Your task to perform on an android device: Go to internet settings Image 0: 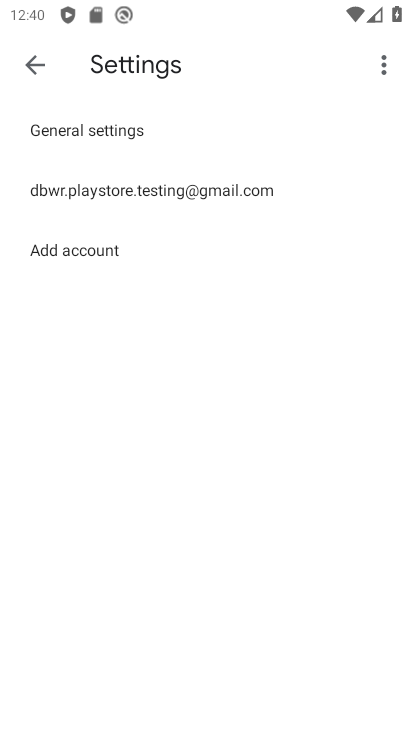
Step 0: press home button
Your task to perform on an android device: Go to internet settings Image 1: 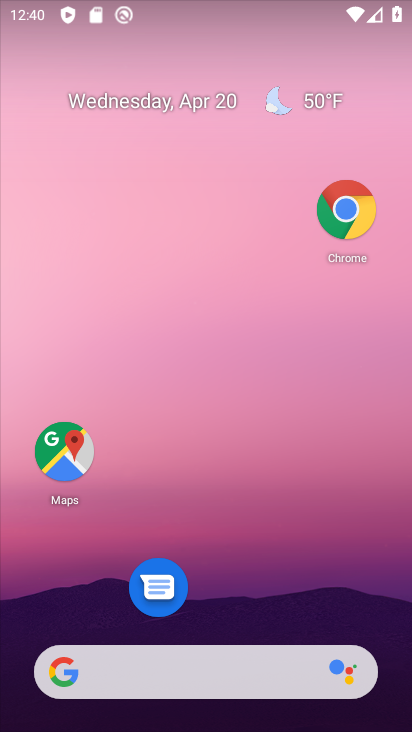
Step 1: drag from (246, 556) to (354, 4)
Your task to perform on an android device: Go to internet settings Image 2: 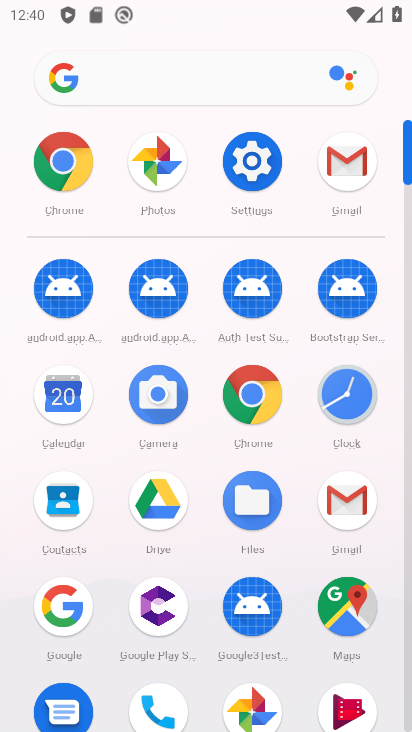
Step 2: click (242, 170)
Your task to perform on an android device: Go to internet settings Image 3: 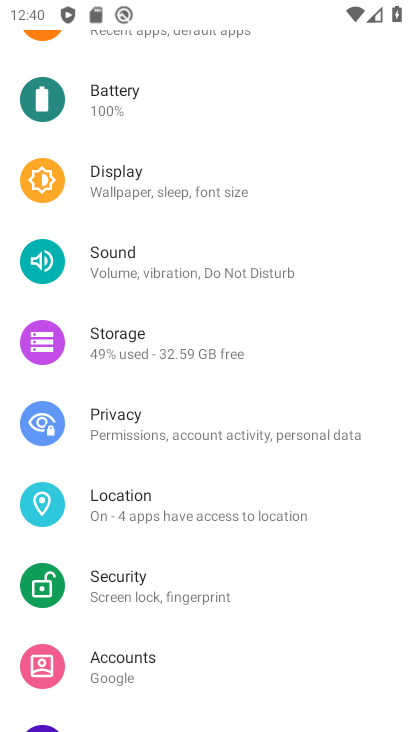
Step 3: drag from (199, 154) to (124, 514)
Your task to perform on an android device: Go to internet settings Image 4: 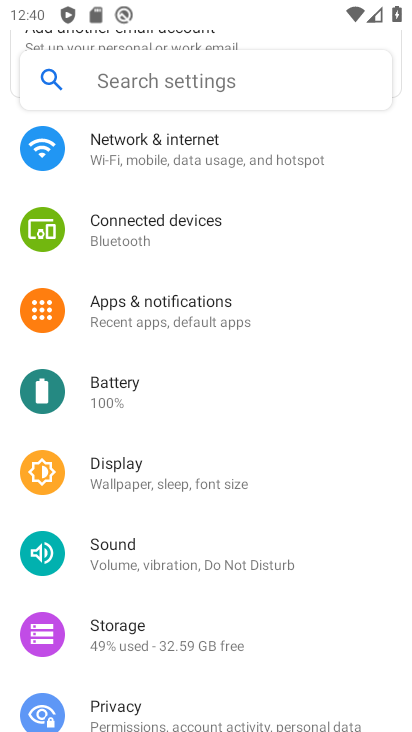
Step 4: drag from (184, 291) to (180, 581)
Your task to perform on an android device: Go to internet settings Image 5: 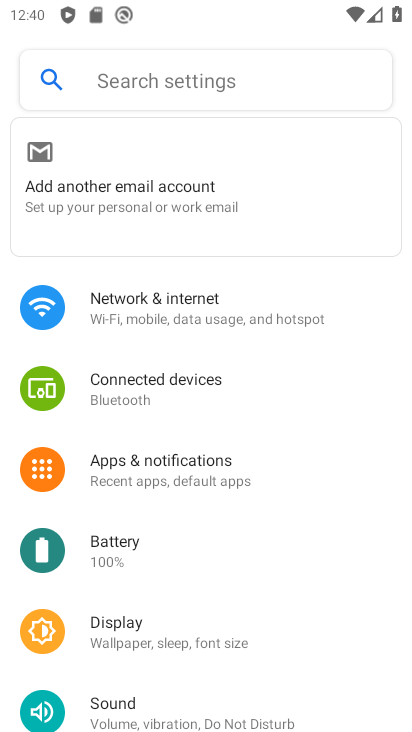
Step 5: click (165, 314)
Your task to perform on an android device: Go to internet settings Image 6: 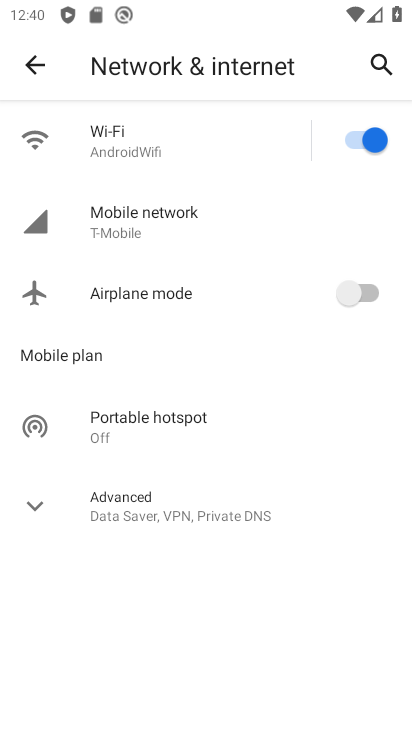
Step 6: task complete